Your task to perform on an android device: Open location settings Image 0: 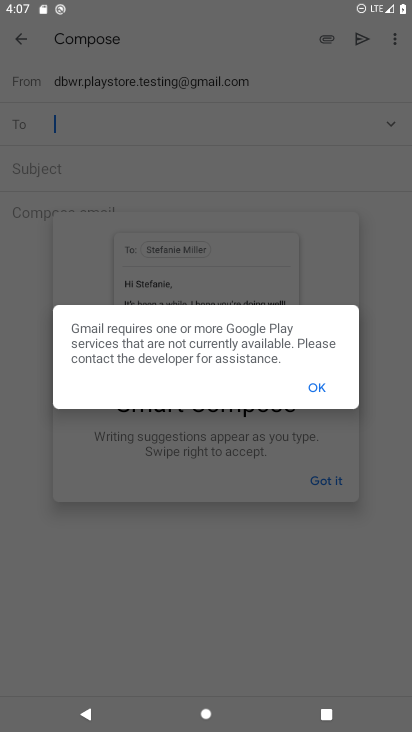
Step 0: press home button
Your task to perform on an android device: Open location settings Image 1: 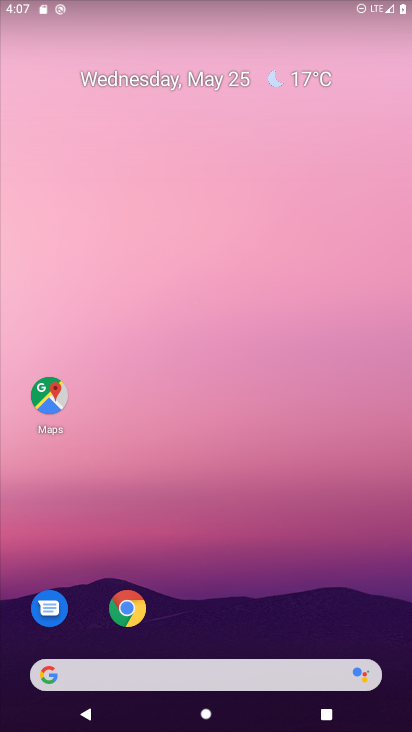
Step 1: drag from (343, 614) to (286, 93)
Your task to perform on an android device: Open location settings Image 2: 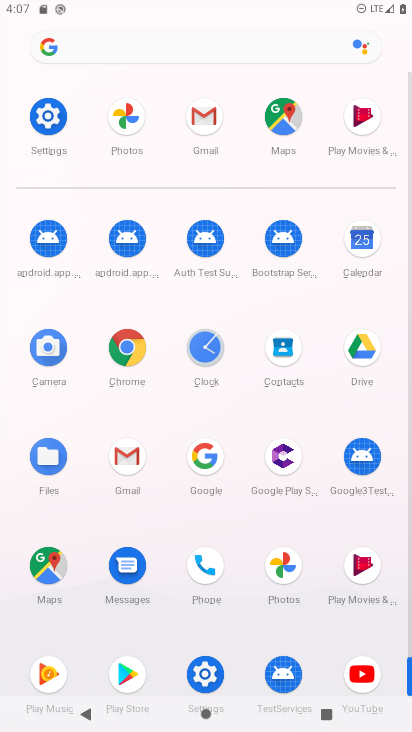
Step 2: click (204, 673)
Your task to perform on an android device: Open location settings Image 3: 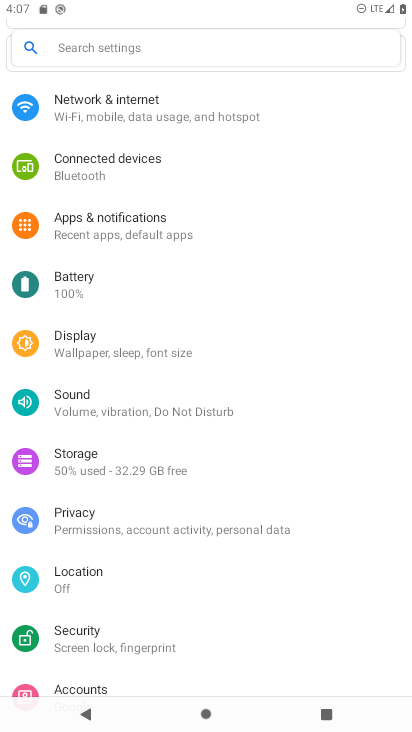
Step 3: click (90, 573)
Your task to perform on an android device: Open location settings Image 4: 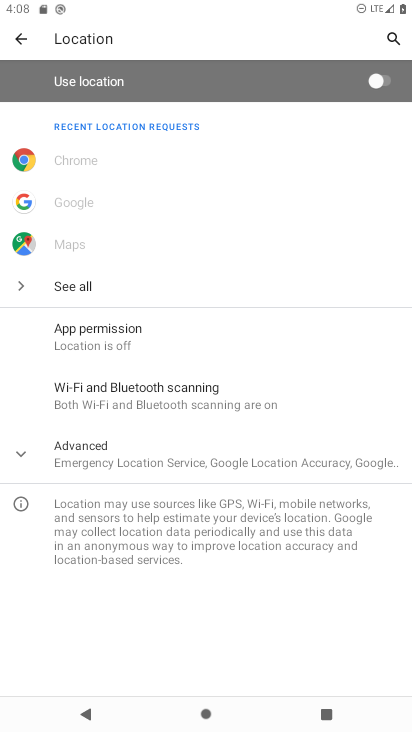
Step 4: task complete